Your task to perform on an android device: change the clock style Image 0: 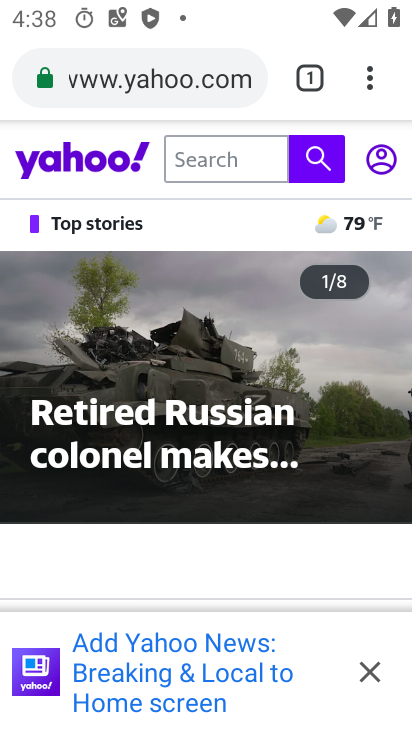
Step 0: press home button
Your task to perform on an android device: change the clock style Image 1: 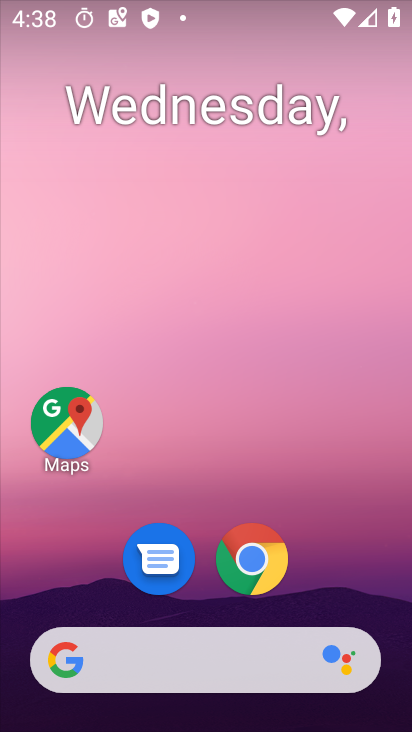
Step 1: drag from (334, 556) to (247, 34)
Your task to perform on an android device: change the clock style Image 2: 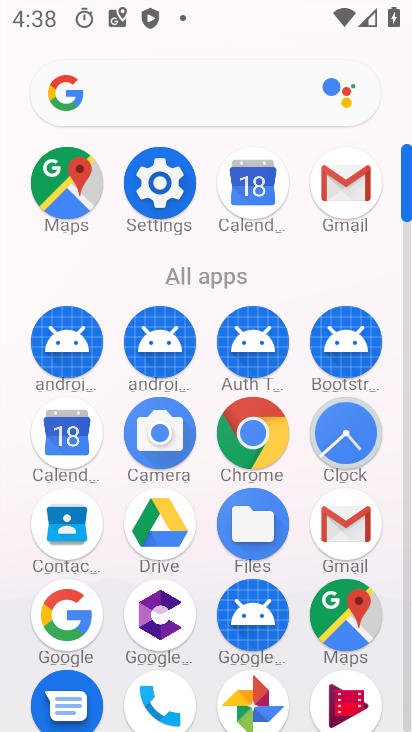
Step 2: click (344, 420)
Your task to perform on an android device: change the clock style Image 3: 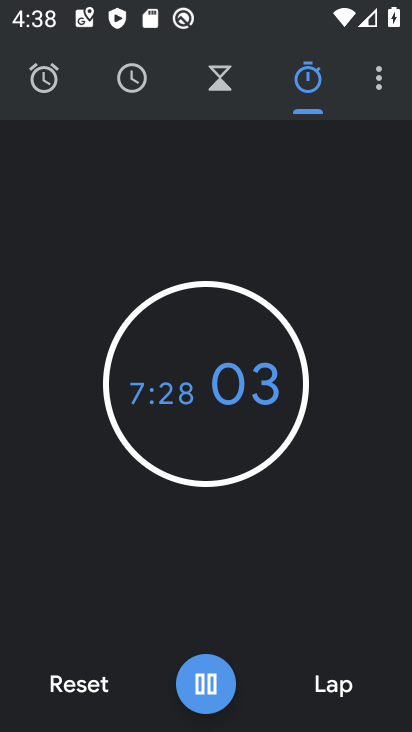
Step 3: click (370, 85)
Your task to perform on an android device: change the clock style Image 4: 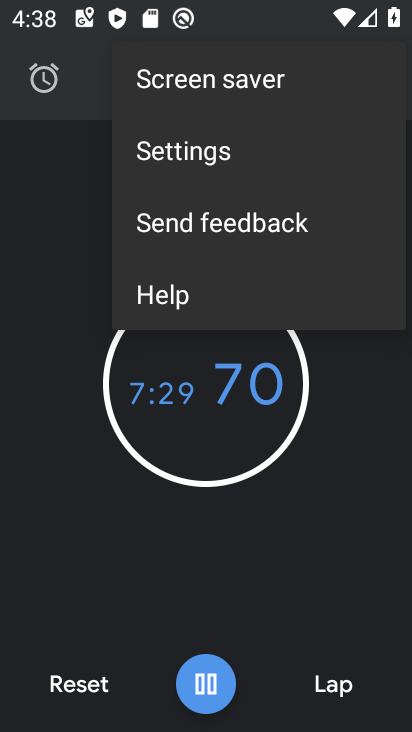
Step 4: click (230, 152)
Your task to perform on an android device: change the clock style Image 5: 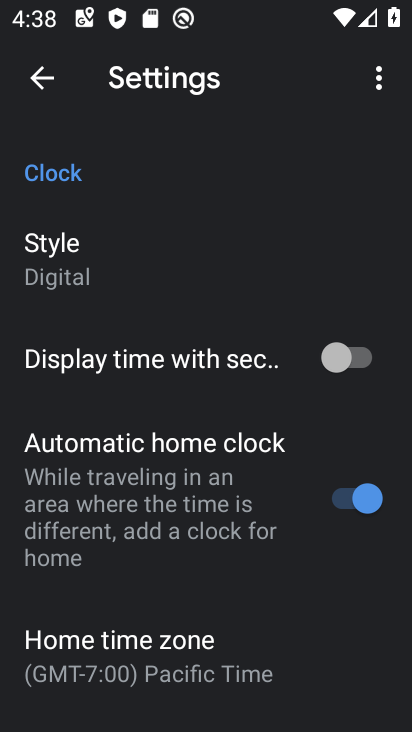
Step 5: click (170, 261)
Your task to perform on an android device: change the clock style Image 6: 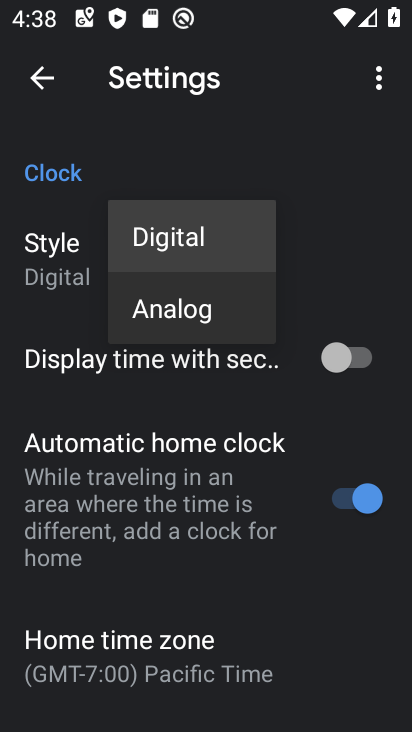
Step 6: click (199, 305)
Your task to perform on an android device: change the clock style Image 7: 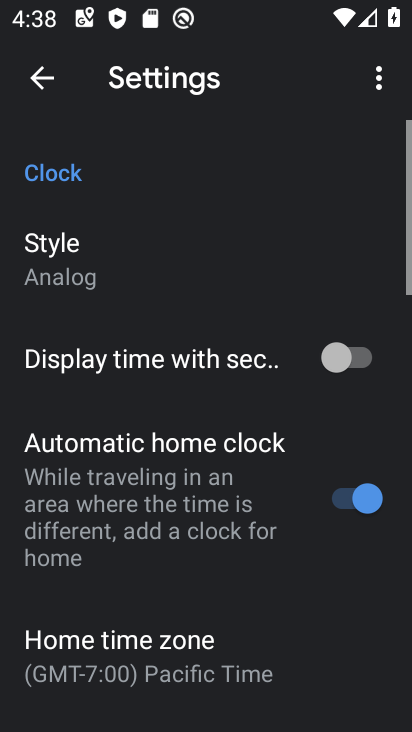
Step 7: task complete